Your task to perform on an android device: stop showing notifications on the lock screen Image 0: 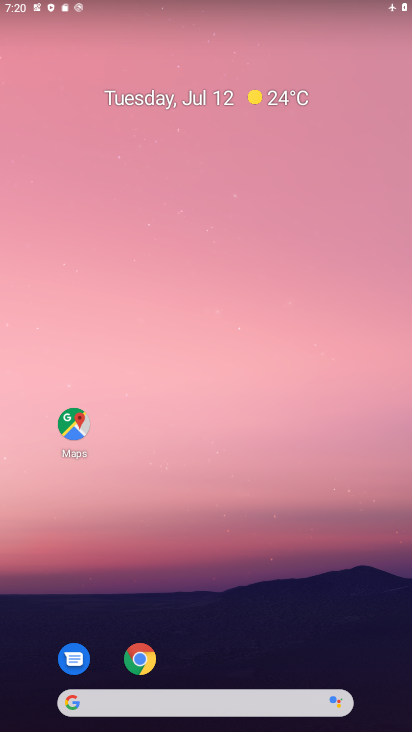
Step 0: drag from (378, 684) to (218, 23)
Your task to perform on an android device: stop showing notifications on the lock screen Image 1: 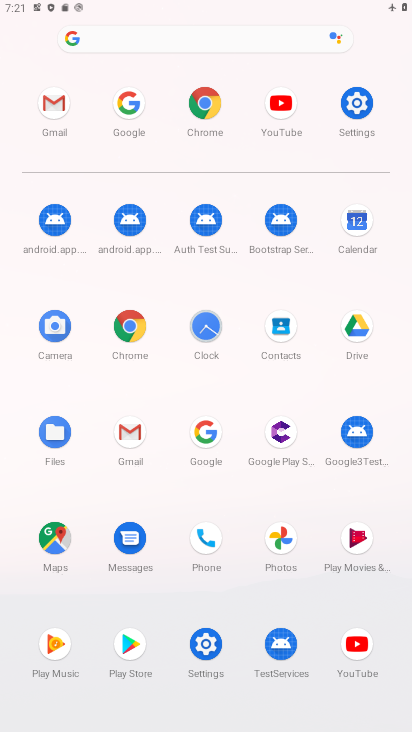
Step 1: click (196, 656)
Your task to perform on an android device: stop showing notifications on the lock screen Image 2: 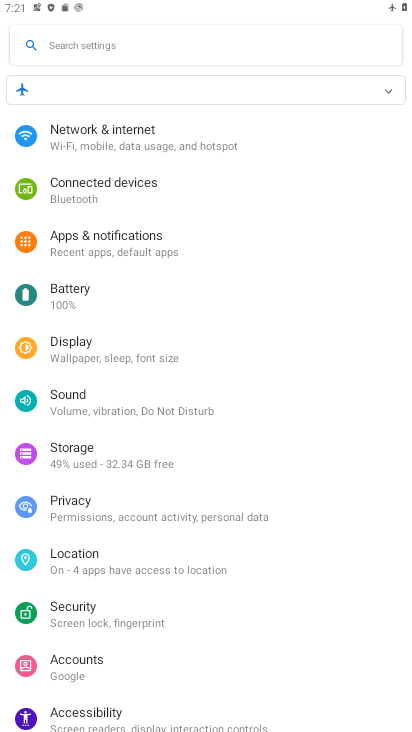
Step 2: click (116, 246)
Your task to perform on an android device: stop showing notifications on the lock screen Image 3: 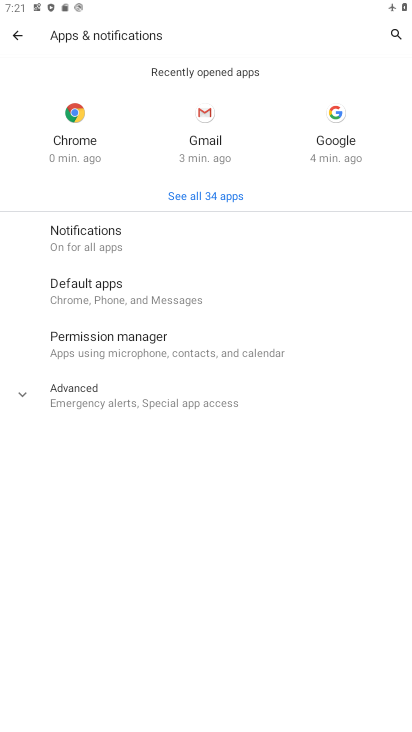
Step 3: click (104, 243)
Your task to perform on an android device: stop showing notifications on the lock screen Image 4: 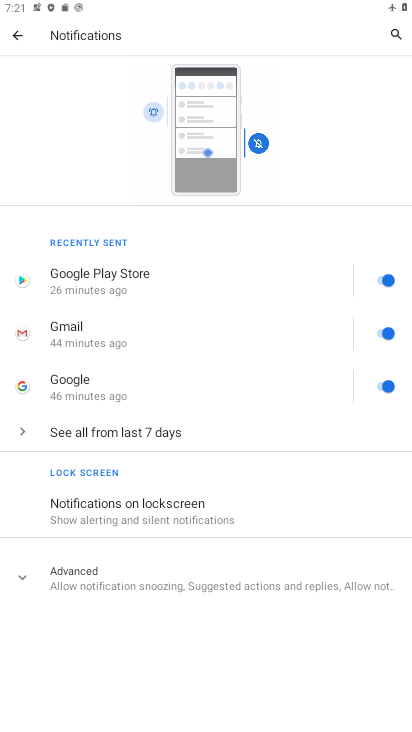
Step 4: click (100, 510)
Your task to perform on an android device: stop showing notifications on the lock screen Image 5: 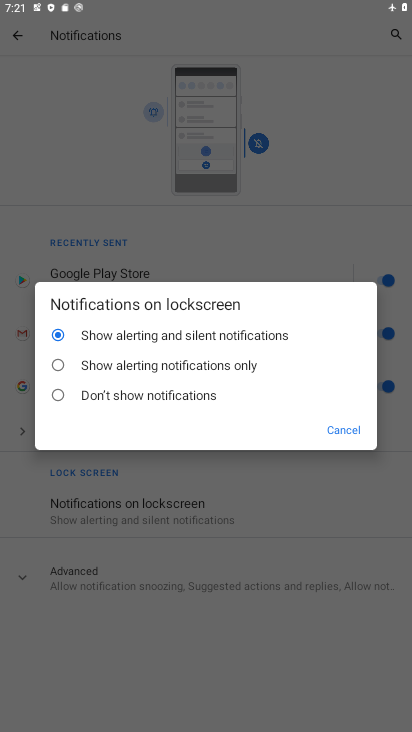
Step 5: click (59, 395)
Your task to perform on an android device: stop showing notifications on the lock screen Image 6: 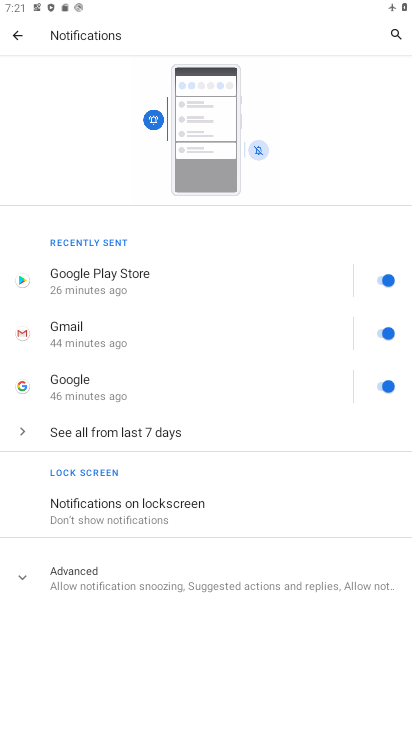
Step 6: task complete